Your task to perform on an android device: change your default location settings in chrome Image 0: 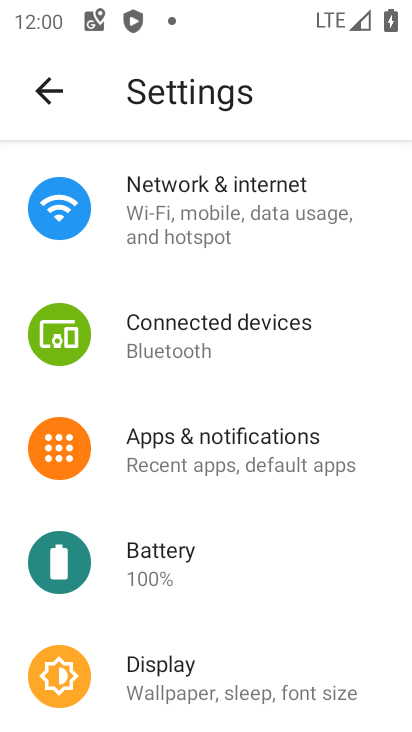
Step 0: press home button
Your task to perform on an android device: change your default location settings in chrome Image 1: 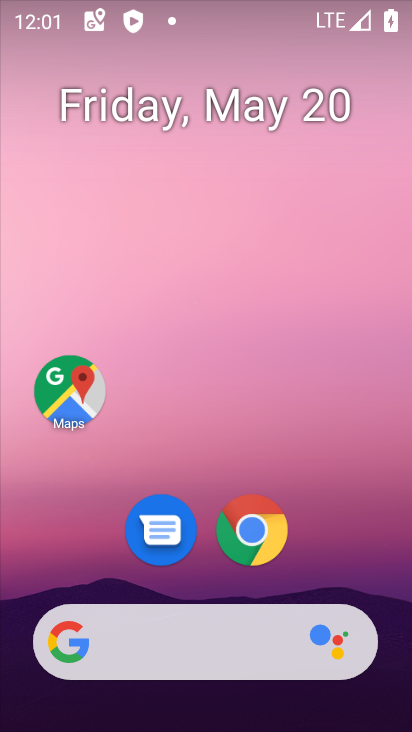
Step 1: click (273, 536)
Your task to perform on an android device: change your default location settings in chrome Image 2: 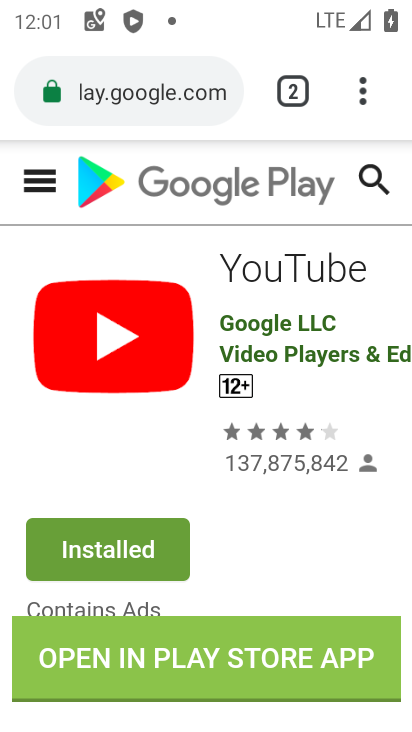
Step 2: click (358, 79)
Your task to perform on an android device: change your default location settings in chrome Image 3: 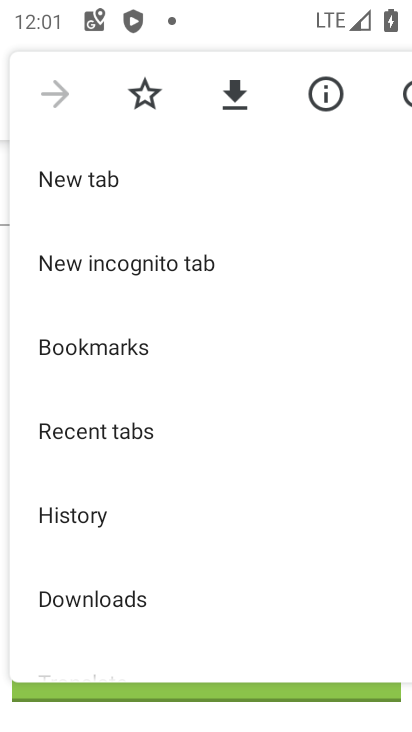
Step 3: drag from (208, 611) to (291, 96)
Your task to perform on an android device: change your default location settings in chrome Image 4: 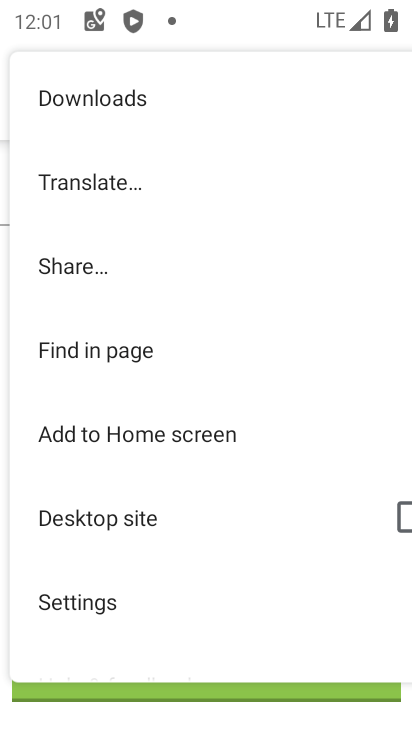
Step 4: click (111, 593)
Your task to perform on an android device: change your default location settings in chrome Image 5: 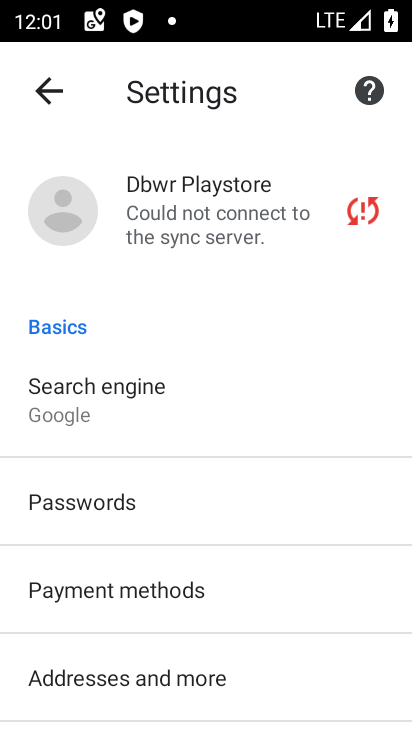
Step 5: drag from (241, 681) to (321, 320)
Your task to perform on an android device: change your default location settings in chrome Image 6: 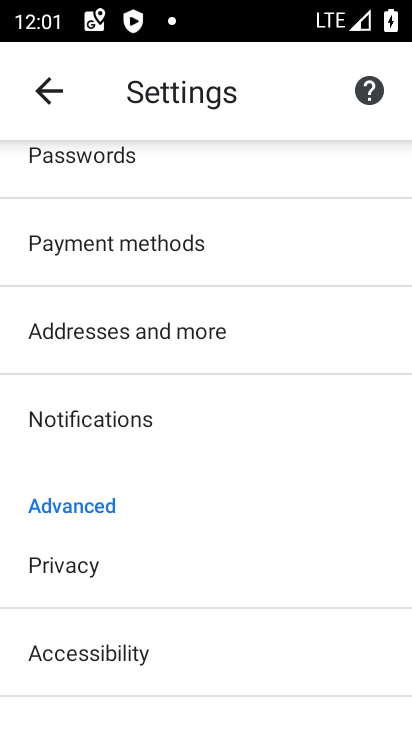
Step 6: drag from (247, 682) to (312, 231)
Your task to perform on an android device: change your default location settings in chrome Image 7: 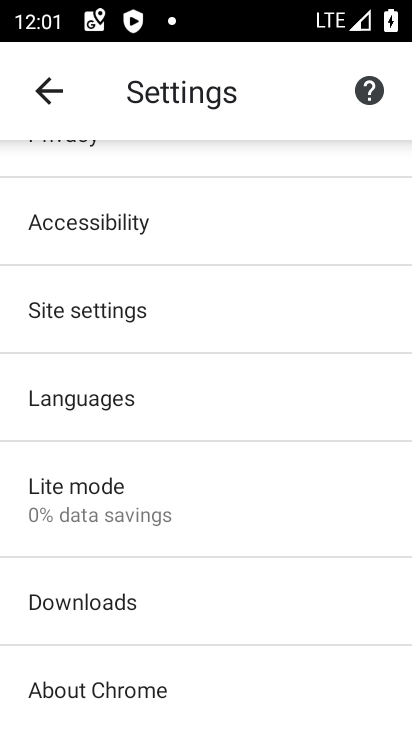
Step 7: click (133, 307)
Your task to perform on an android device: change your default location settings in chrome Image 8: 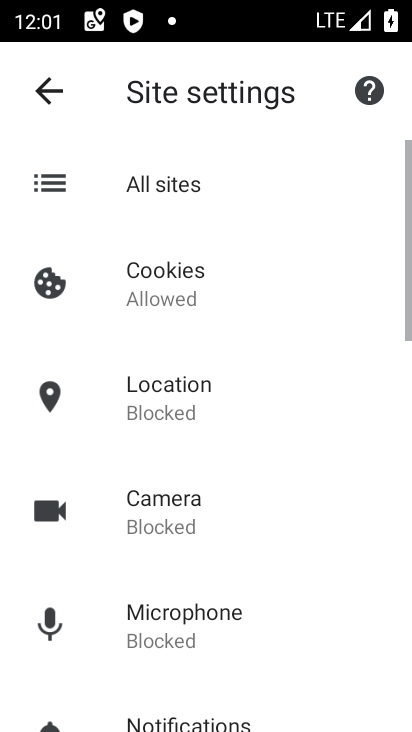
Step 8: click (252, 376)
Your task to perform on an android device: change your default location settings in chrome Image 9: 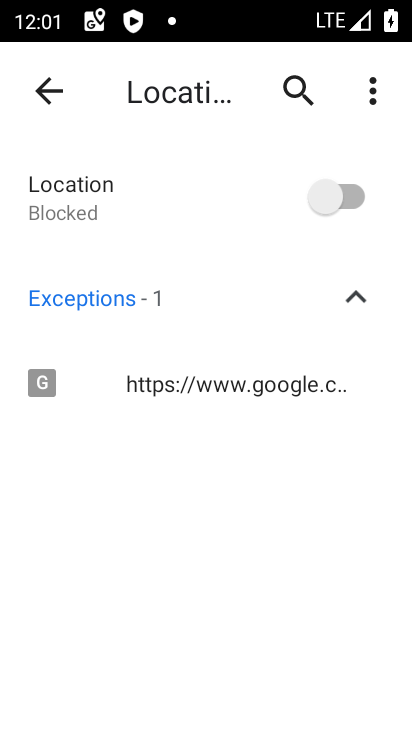
Step 9: click (341, 194)
Your task to perform on an android device: change your default location settings in chrome Image 10: 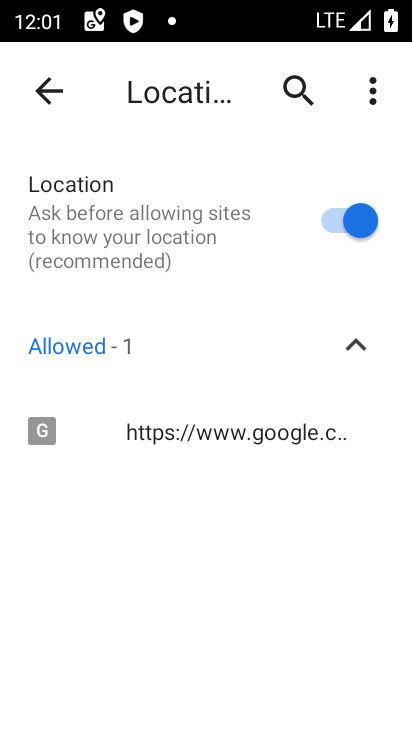
Step 10: task complete